Your task to perform on an android device: see tabs open on other devices in the chrome app Image 0: 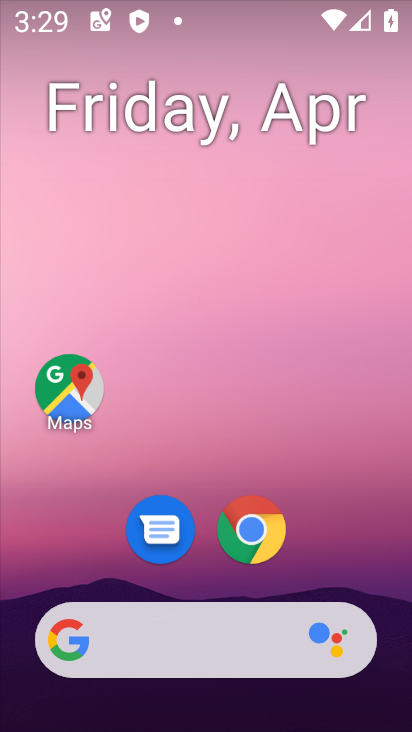
Step 0: click (258, 521)
Your task to perform on an android device: see tabs open on other devices in the chrome app Image 1: 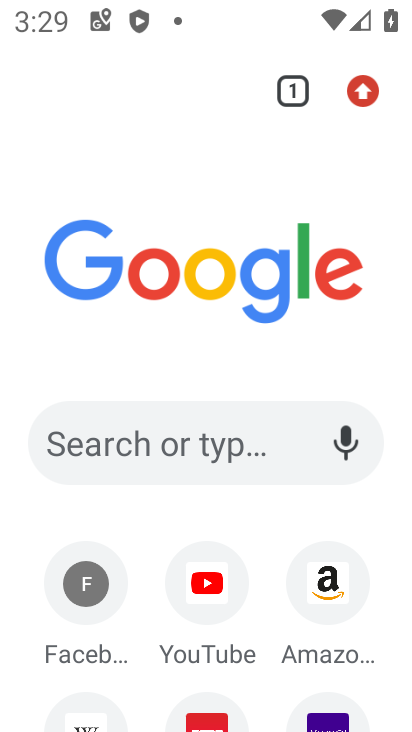
Step 1: click (369, 79)
Your task to perform on an android device: see tabs open on other devices in the chrome app Image 2: 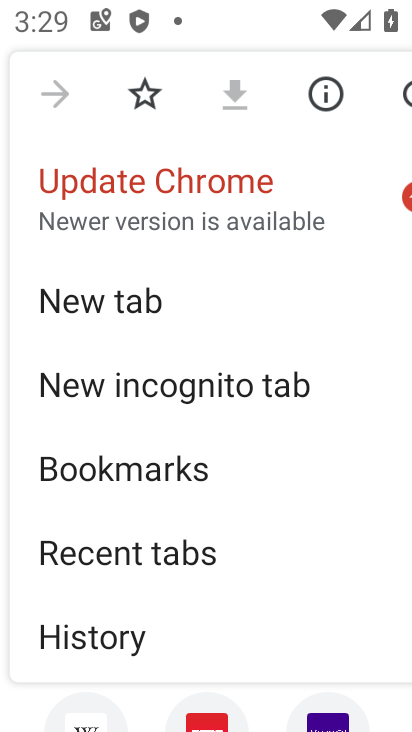
Step 2: click (118, 553)
Your task to perform on an android device: see tabs open on other devices in the chrome app Image 3: 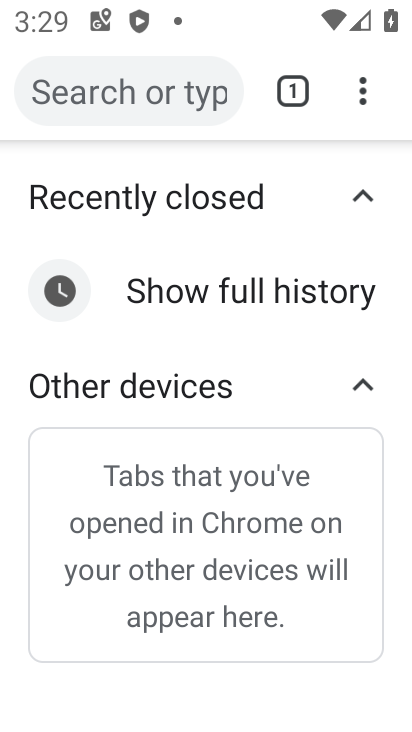
Step 3: task complete